Your task to perform on an android device: Clear the shopping cart on amazon. Search for "alienware aurora" on amazon, select the first entry, add it to the cart, then select checkout. Image 0: 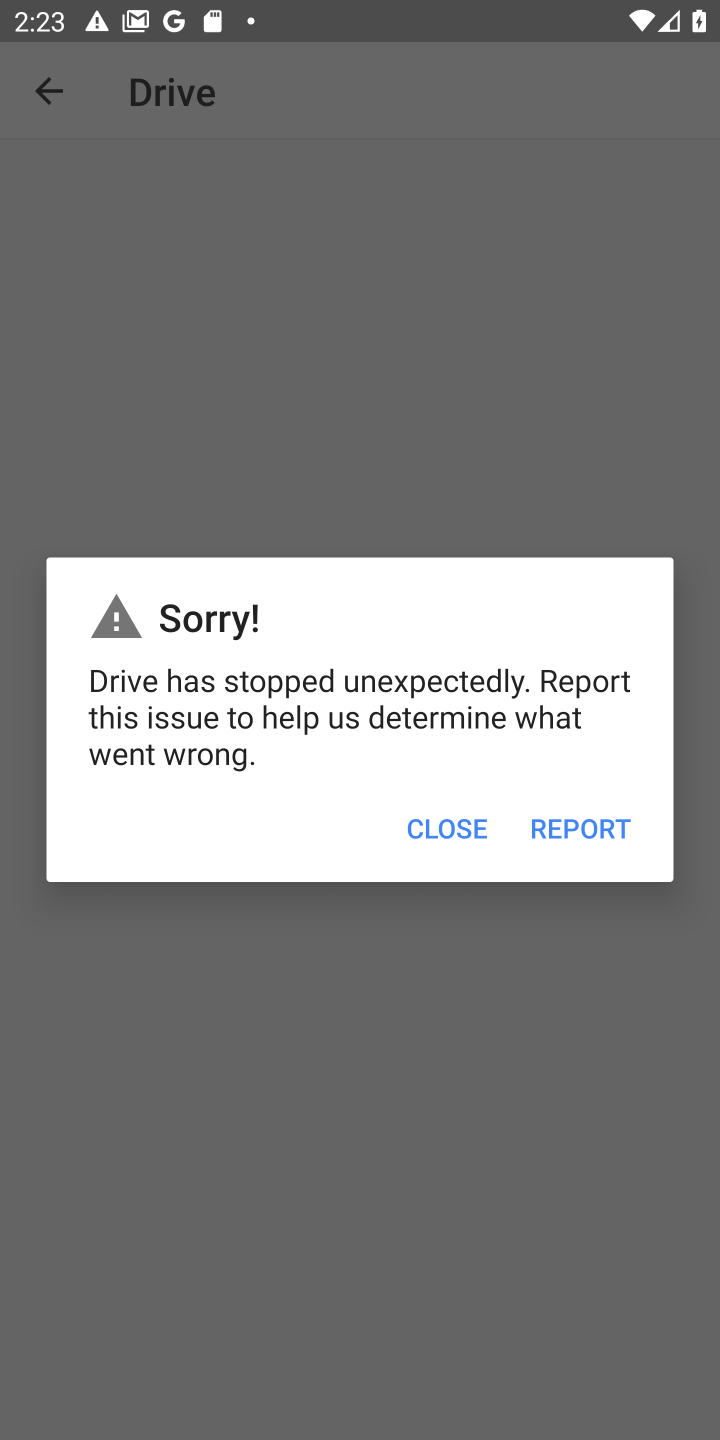
Step 0: press home button
Your task to perform on an android device: Clear the shopping cart on amazon. Search for "alienware aurora" on amazon, select the first entry, add it to the cart, then select checkout. Image 1: 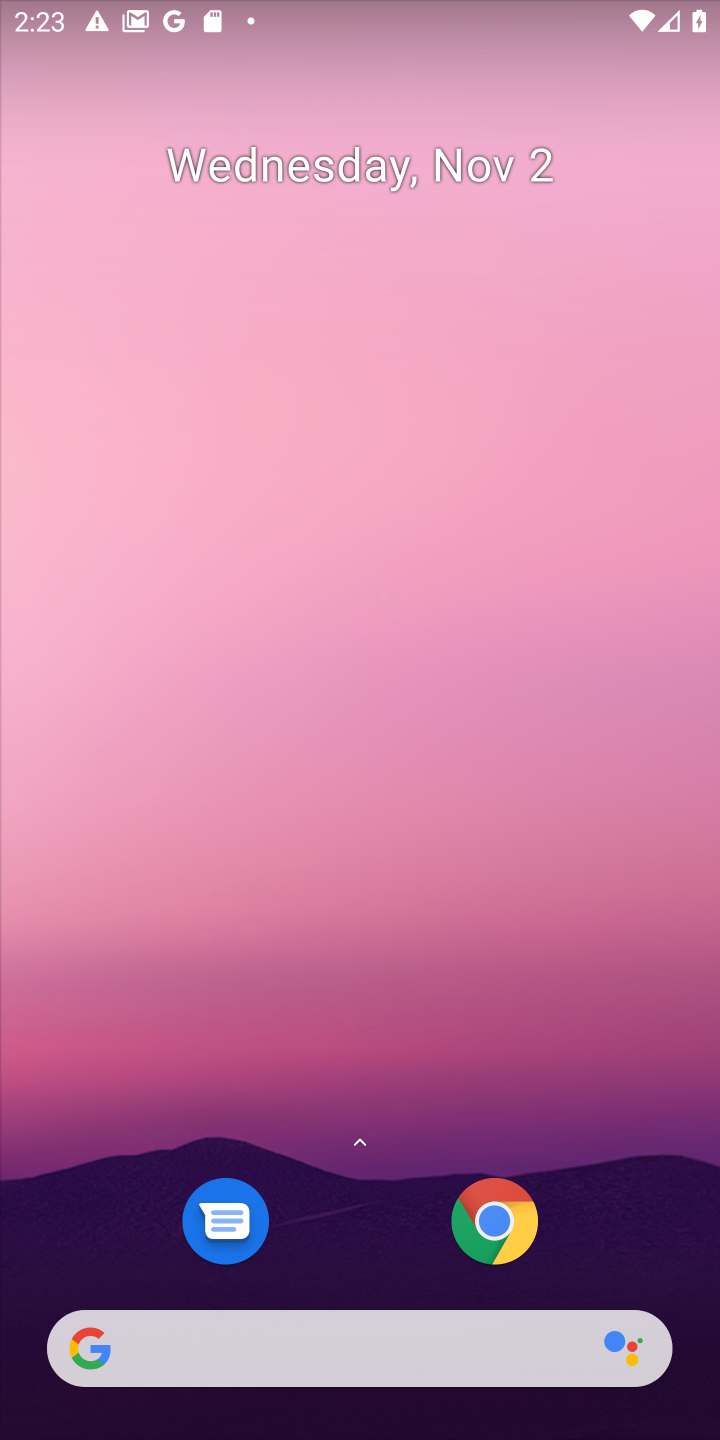
Step 1: click (538, 1322)
Your task to perform on an android device: Clear the shopping cart on amazon. Search for "alienware aurora" on amazon, select the first entry, add it to the cart, then select checkout. Image 2: 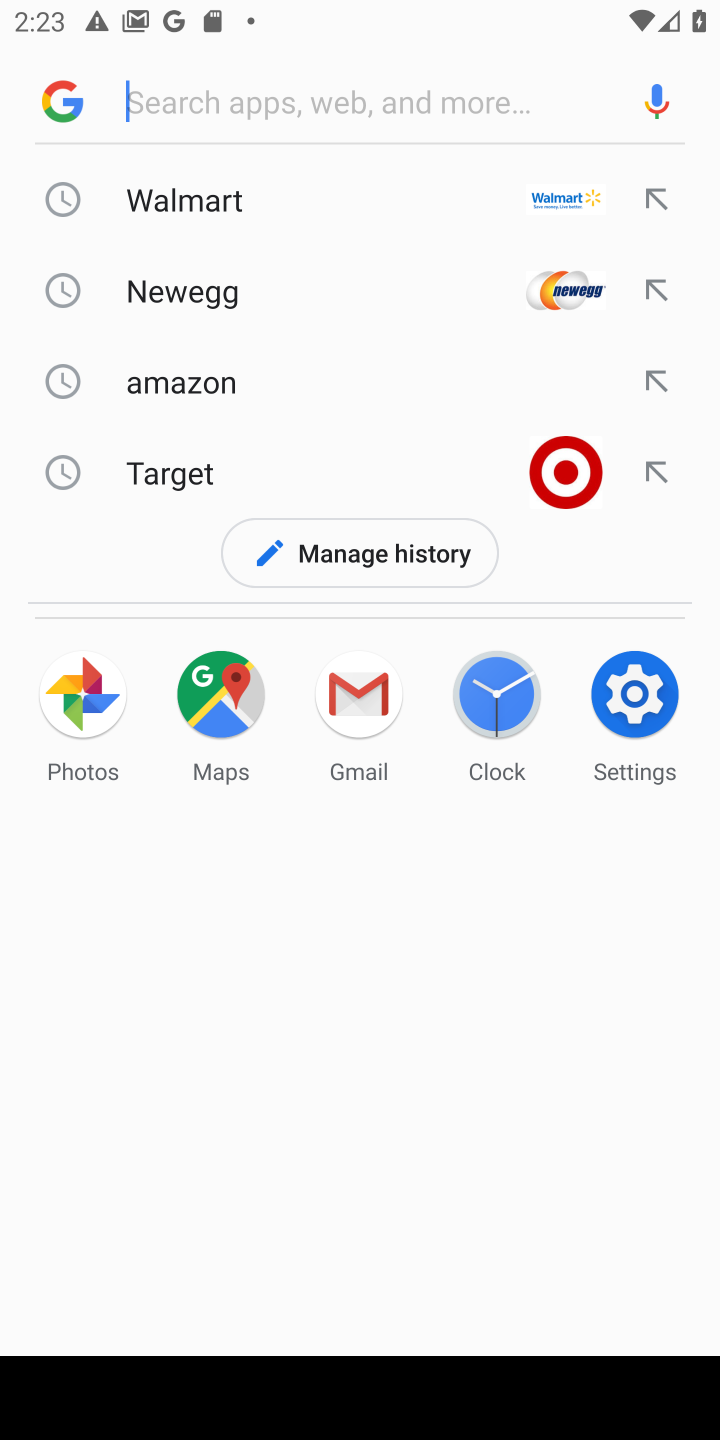
Step 2: click (218, 376)
Your task to perform on an android device: Clear the shopping cart on amazon. Search for "alienware aurora" on amazon, select the first entry, add it to the cart, then select checkout. Image 3: 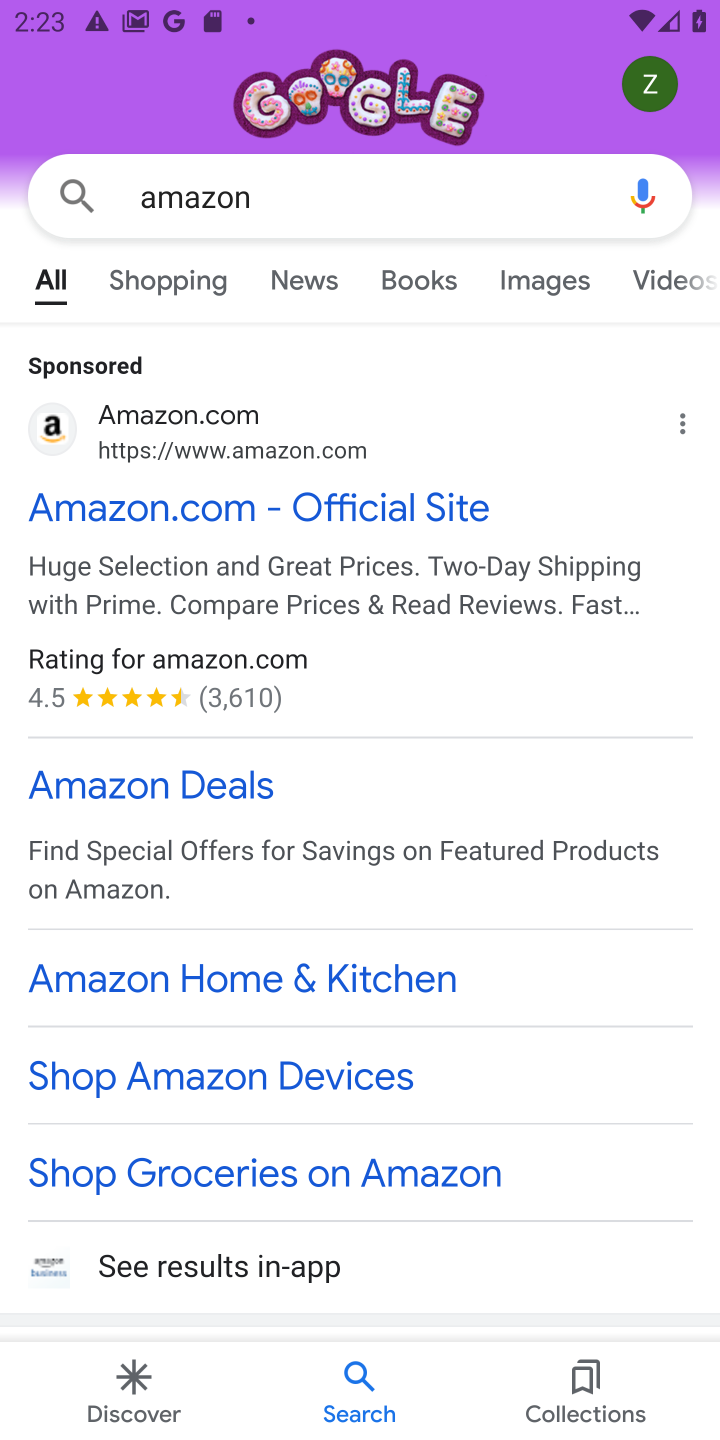
Step 3: click (273, 518)
Your task to perform on an android device: Clear the shopping cart on amazon. Search for "alienware aurora" on amazon, select the first entry, add it to the cart, then select checkout. Image 4: 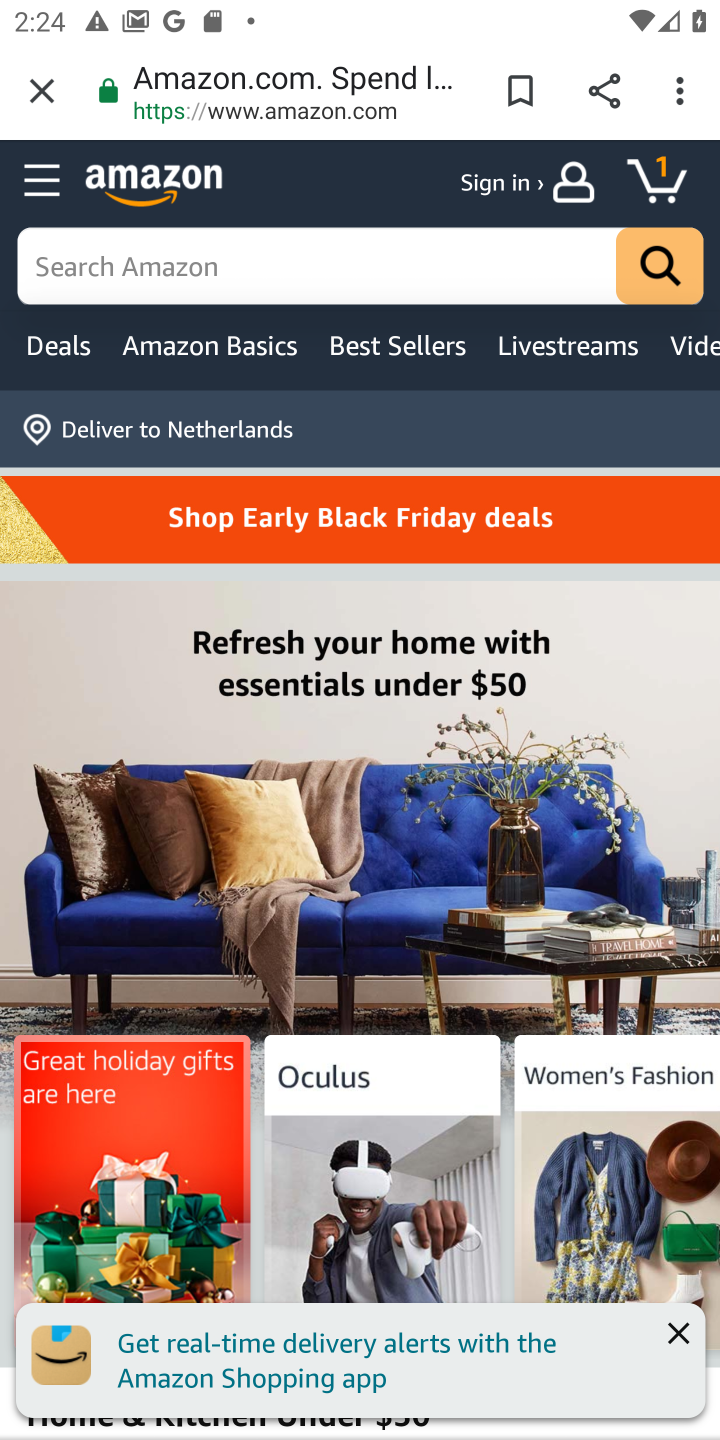
Step 4: task complete